Your task to perform on an android device: uninstall "Microsoft Outlook" Image 0: 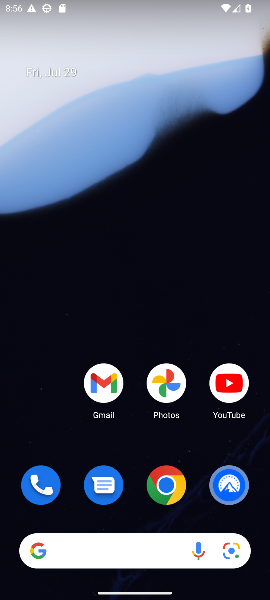
Step 0: drag from (117, 504) to (94, 50)
Your task to perform on an android device: uninstall "Microsoft Outlook" Image 1: 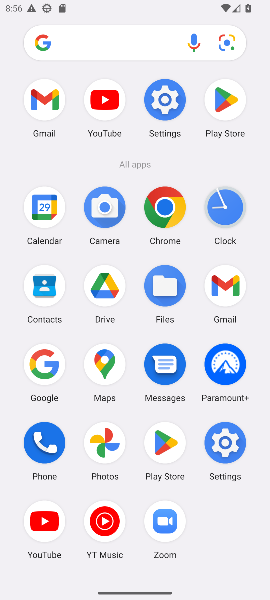
Step 1: click (151, 429)
Your task to perform on an android device: uninstall "Microsoft Outlook" Image 2: 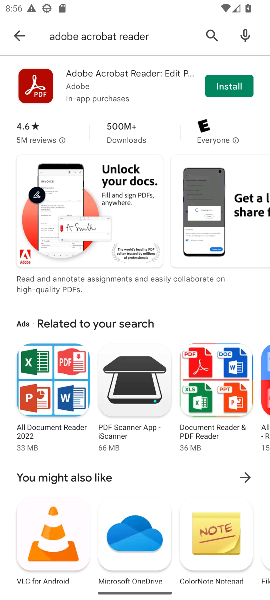
Step 2: click (208, 36)
Your task to perform on an android device: uninstall "Microsoft Outlook" Image 3: 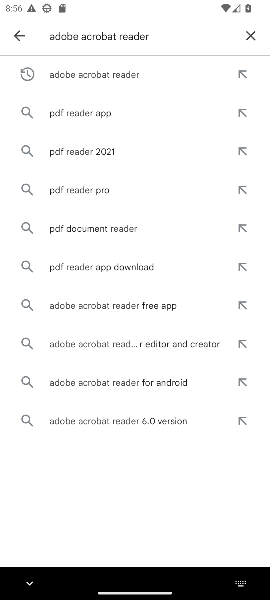
Step 3: click (250, 38)
Your task to perform on an android device: uninstall "Microsoft Outlook" Image 4: 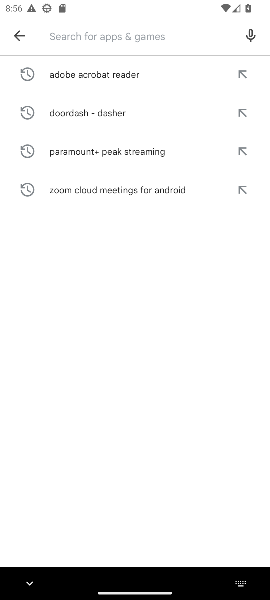
Step 4: type "Microsoft Outlook"
Your task to perform on an android device: uninstall "Microsoft Outlook" Image 5: 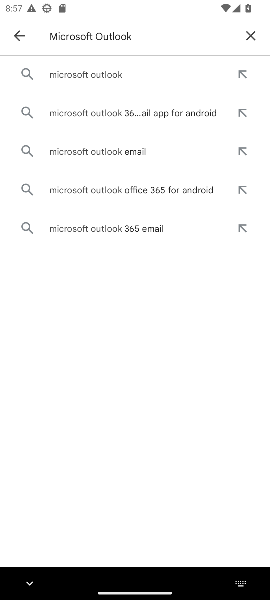
Step 5: click (90, 81)
Your task to perform on an android device: uninstall "Microsoft Outlook" Image 6: 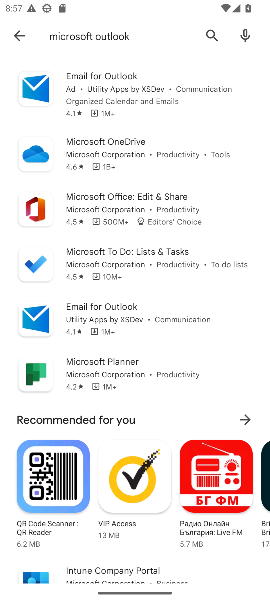
Step 6: click (137, 98)
Your task to perform on an android device: uninstall "Microsoft Outlook" Image 7: 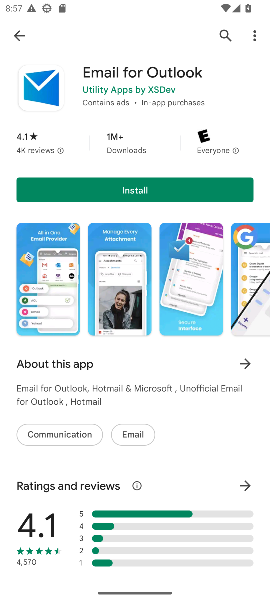
Step 7: task complete